Your task to perform on an android device: turn on translation in the chrome app Image 0: 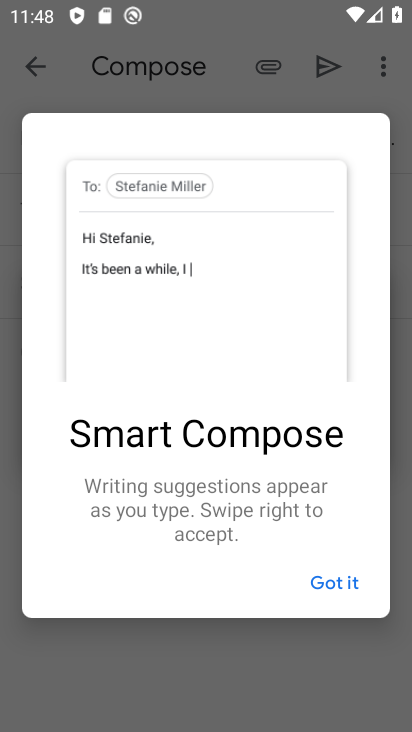
Step 0: press home button
Your task to perform on an android device: turn on translation in the chrome app Image 1: 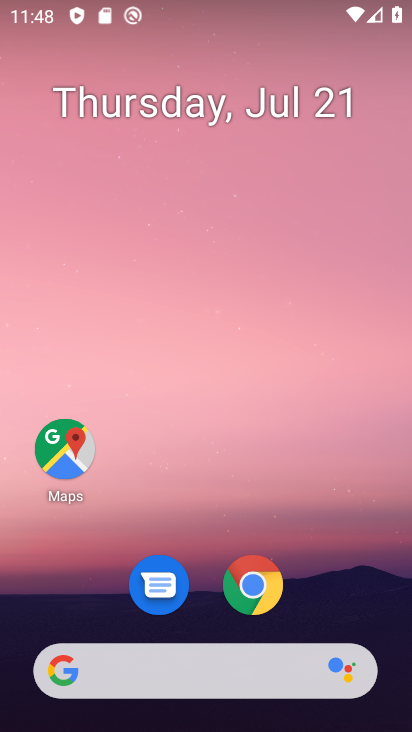
Step 1: click (257, 581)
Your task to perform on an android device: turn on translation in the chrome app Image 2: 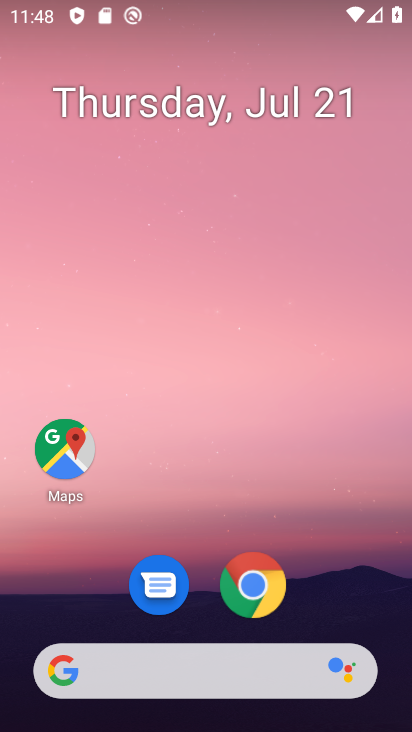
Step 2: click (254, 589)
Your task to perform on an android device: turn on translation in the chrome app Image 3: 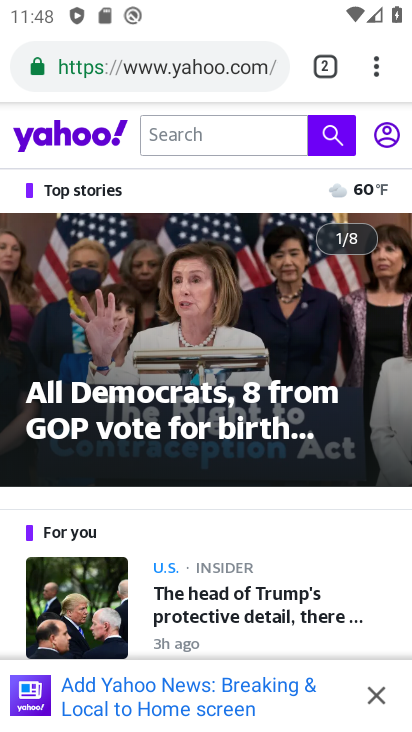
Step 3: drag from (377, 67) to (214, 584)
Your task to perform on an android device: turn on translation in the chrome app Image 4: 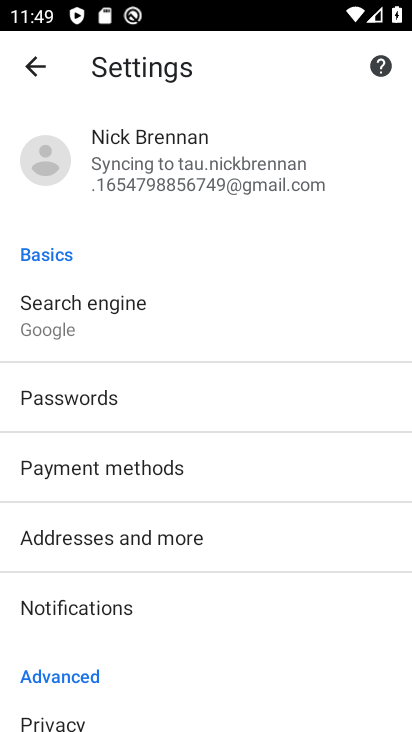
Step 4: drag from (159, 596) to (352, 46)
Your task to perform on an android device: turn on translation in the chrome app Image 5: 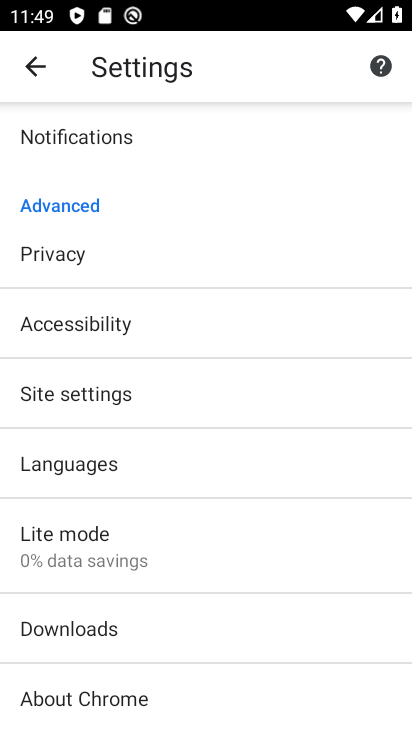
Step 5: drag from (228, 561) to (338, 182)
Your task to perform on an android device: turn on translation in the chrome app Image 6: 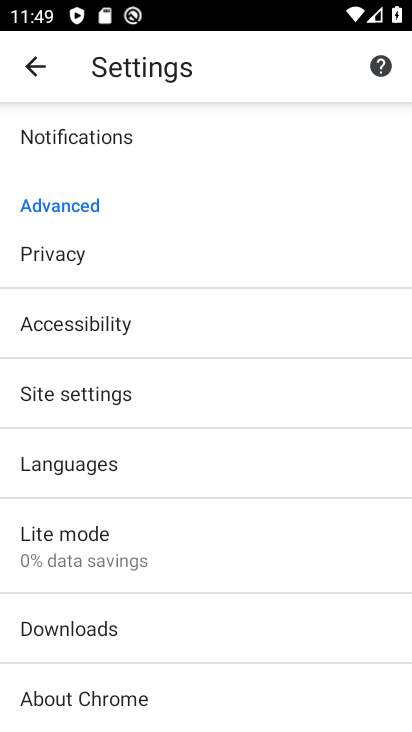
Step 6: click (154, 466)
Your task to perform on an android device: turn on translation in the chrome app Image 7: 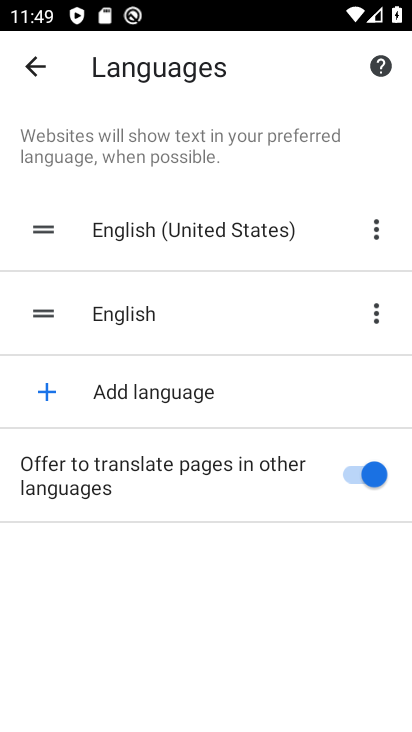
Step 7: task complete